Your task to perform on an android device: add a label to a message in the gmail app Image 0: 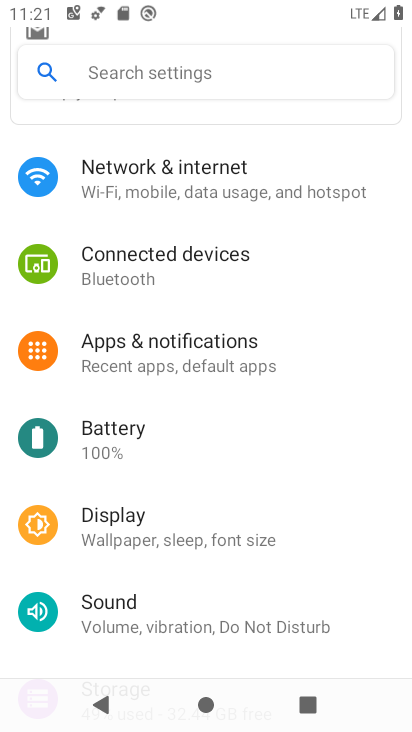
Step 0: press home button
Your task to perform on an android device: add a label to a message in the gmail app Image 1: 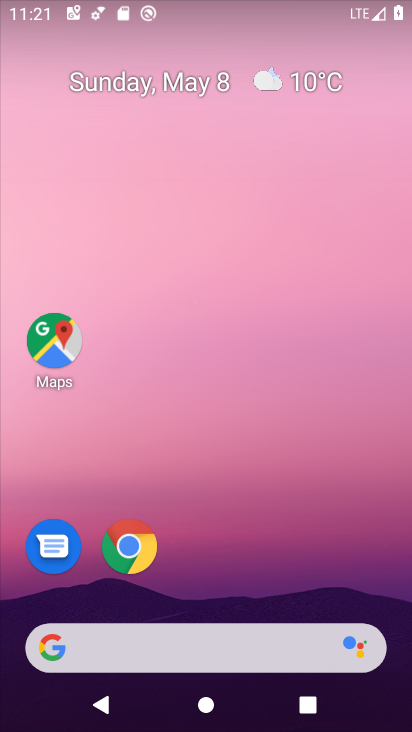
Step 1: drag from (386, 609) to (353, 98)
Your task to perform on an android device: add a label to a message in the gmail app Image 2: 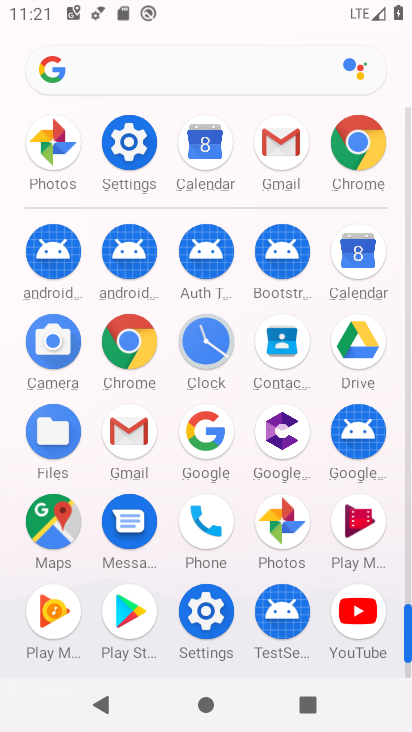
Step 2: click (130, 431)
Your task to perform on an android device: add a label to a message in the gmail app Image 3: 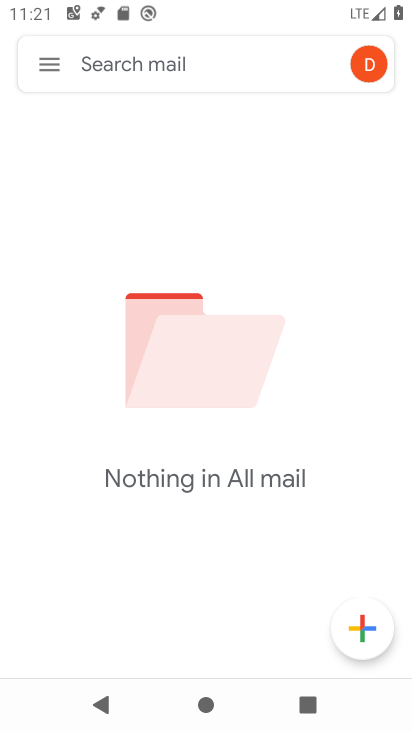
Step 3: click (48, 63)
Your task to perform on an android device: add a label to a message in the gmail app Image 4: 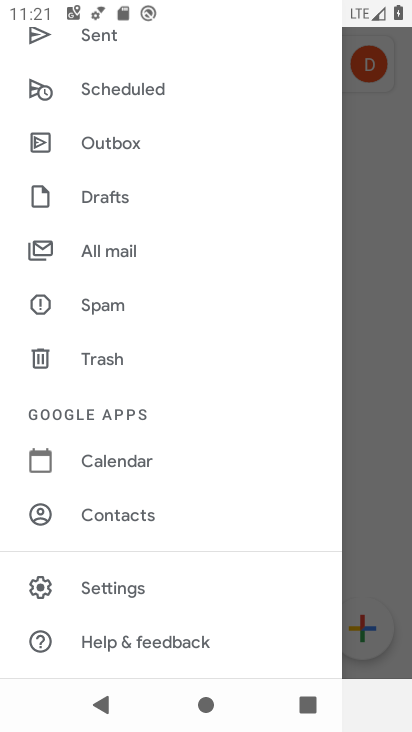
Step 4: click (115, 249)
Your task to perform on an android device: add a label to a message in the gmail app Image 5: 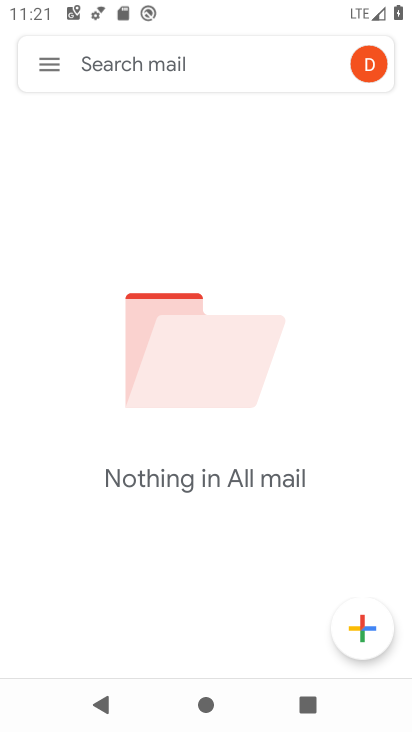
Step 5: task complete